Your task to perform on an android device: toggle notifications settings in the gmail app Image 0: 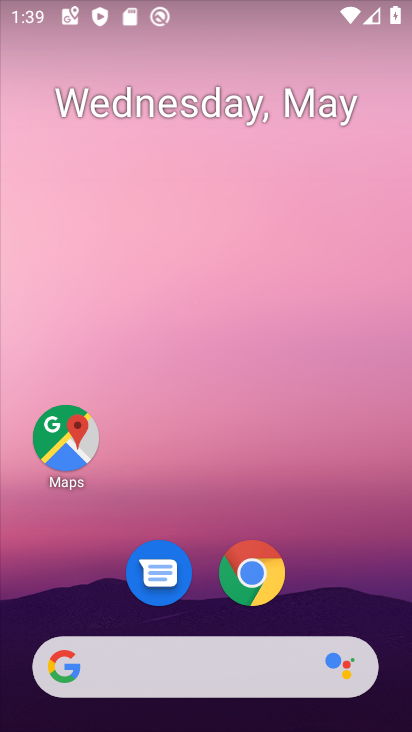
Step 0: drag from (324, 598) to (314, 43)
Your task to perform on an android device: toggle notifications settings in the gmail app Image 1: 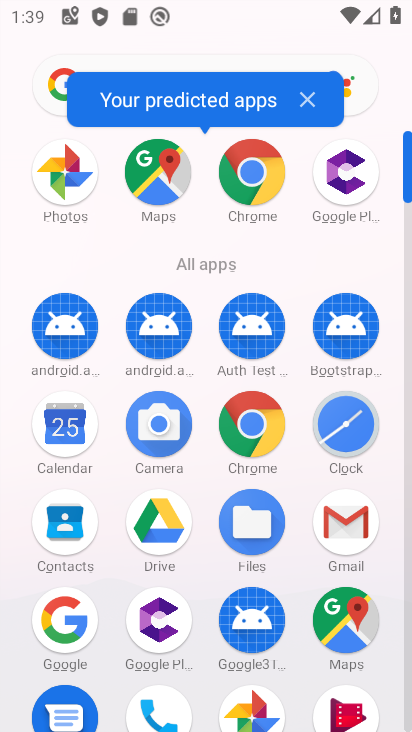
Step 1: click (324, 537)
Your task to perform on an android device: toggle notifications settings in the gmail app Image 2: 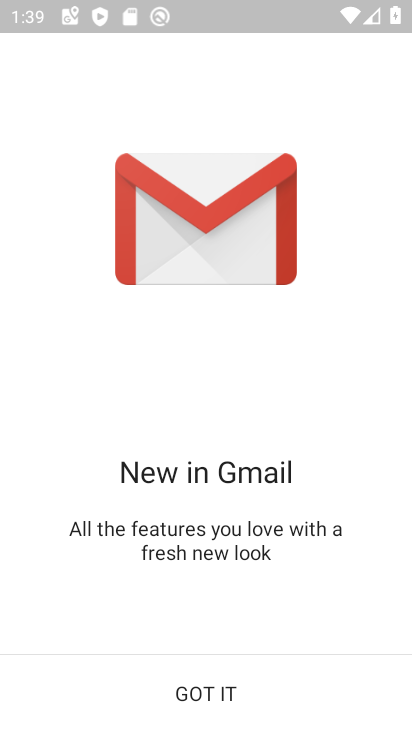
Step 2: click (194, 675)
Your task to perform on an android device: toggle notifications settings in the gmail app Image 3: 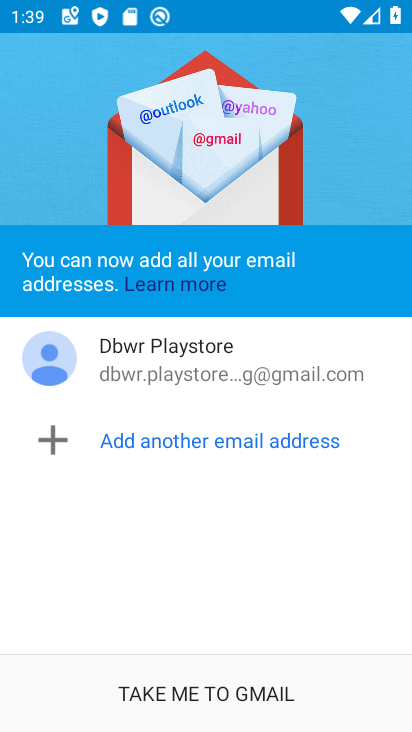
Step 3: click (93, 687)
Your task to perform on an android device: toggle notifications settings in the gmail app Image 4: 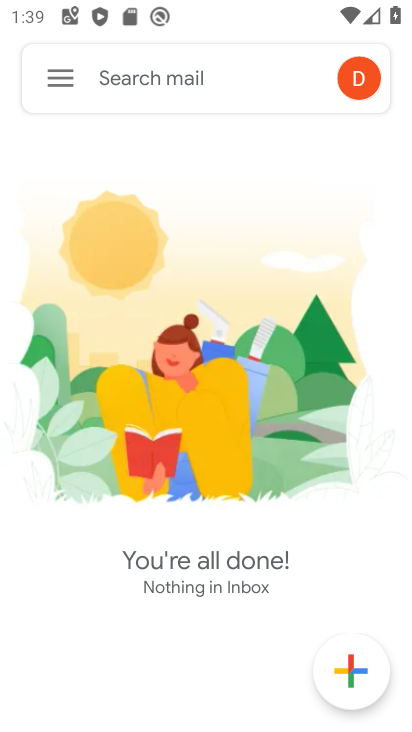
Step 4: click (63, 75)
Your task to perform on an android device: toggle notifications settings in the gmail app Image 5: 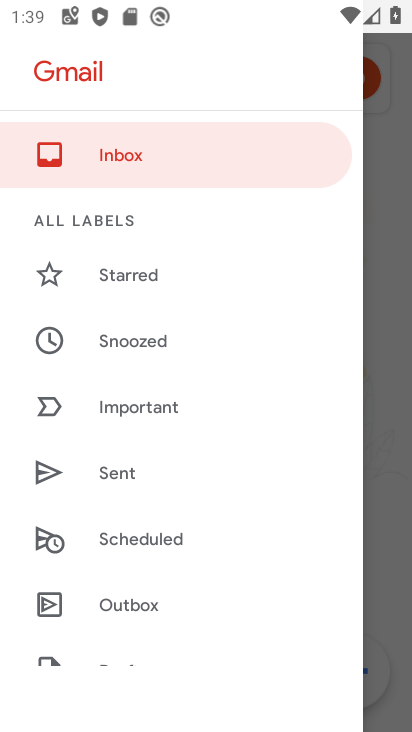
Step 5: drag from (214, 653) to (334, 218)
Your task to perform on an android device: toggle notifications settings in the gmail app Image 6: 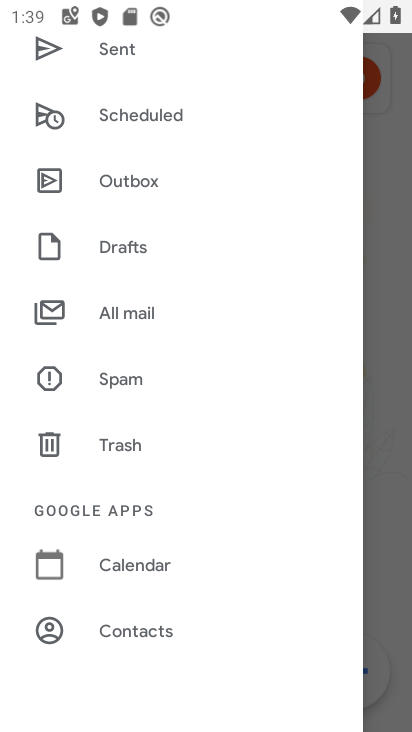
Step 6: drag from (218, 590) to (189, 206)
Your task to perform on an android device: toggle notifications settings in the gmail app Image 7: 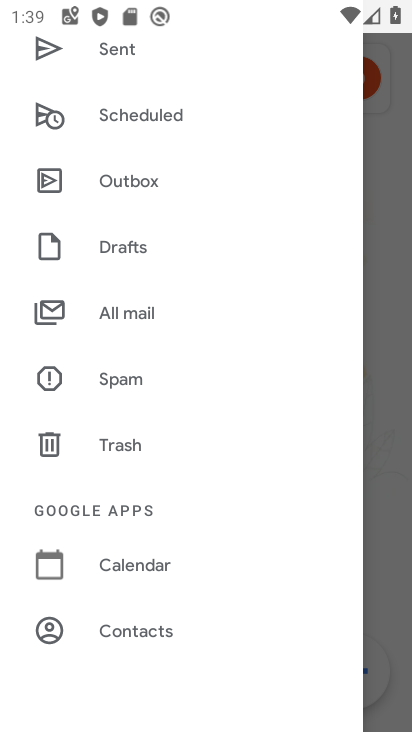
Step 7: drag from (101, 590) to (154, 189)
Your task to perform on an android device: toggle notifications settings in the gmail app Image 8: 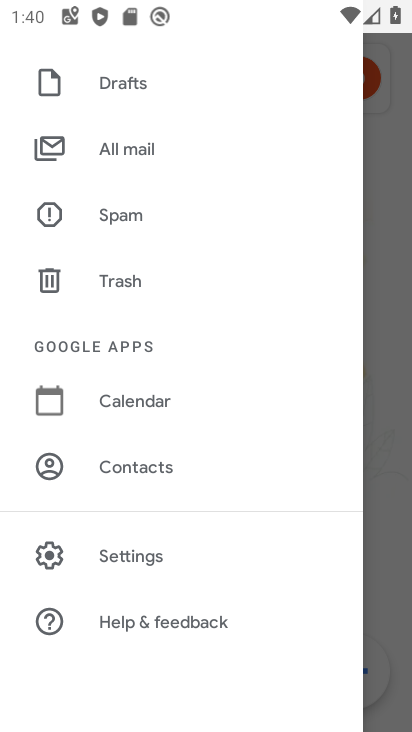
Step 8: click (158, 553)
Your task to perform on an android device: toggle notifications settings in the gmail app Image 9: 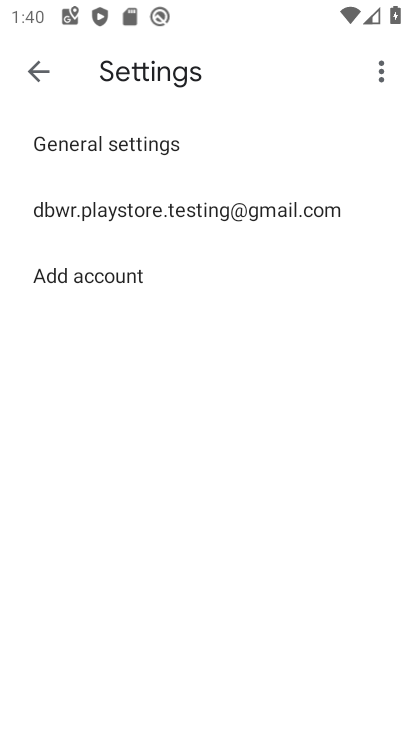
Step 9: click (227, 220)
Your task to perform on an android device: toggle notifications settings in the gmail app Image 10: 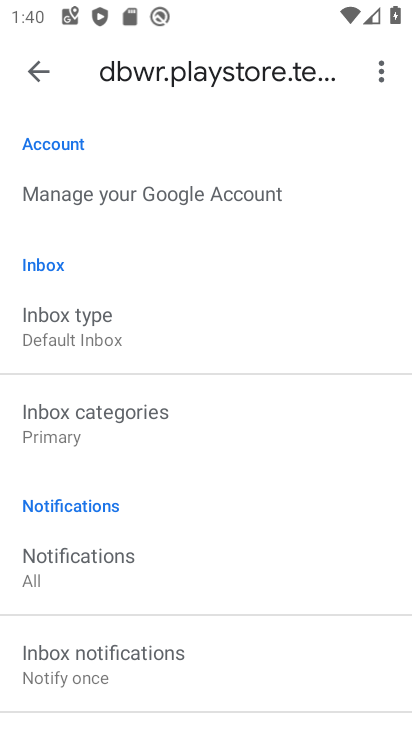
Step 10: drag from (96, 632) to (212, 153)
Your task to perform on an android device: toggle notifications settings in the gmail app Image 11: 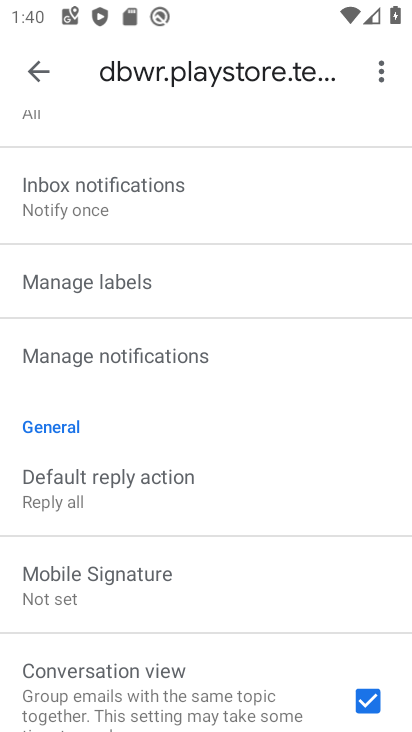
Step 11: click (117, 363)
Your task to perform on an android device: toggle notifications settings in the gmail app Image 12: 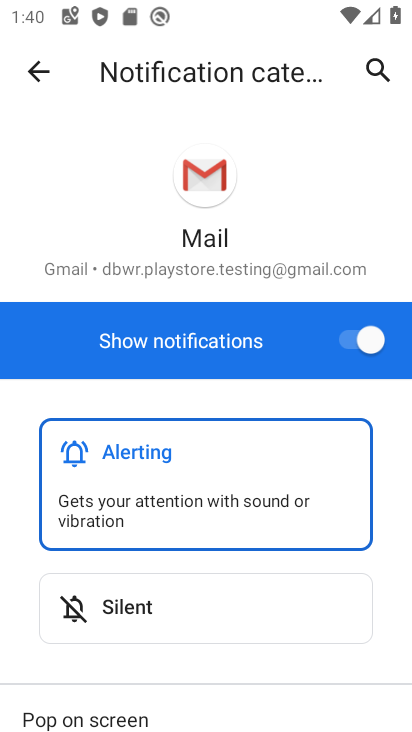
Step 12: click (366, 344)
Your task to perform on an android device: toggle notifications settings in the gmail app Image 13: 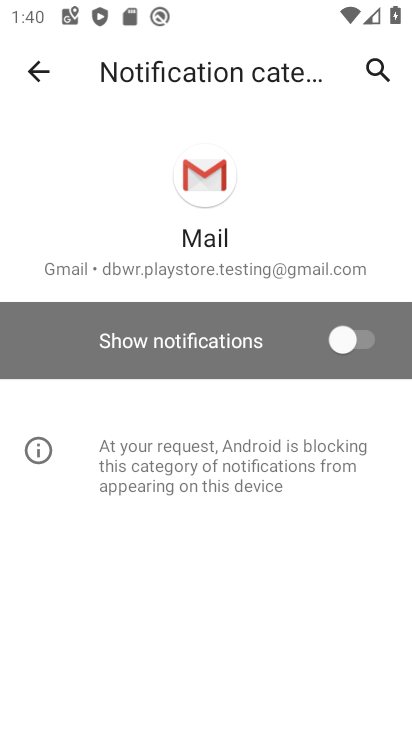
Step 13: task complete